Your task to perform on an android device: Go to Android settings Image 0: 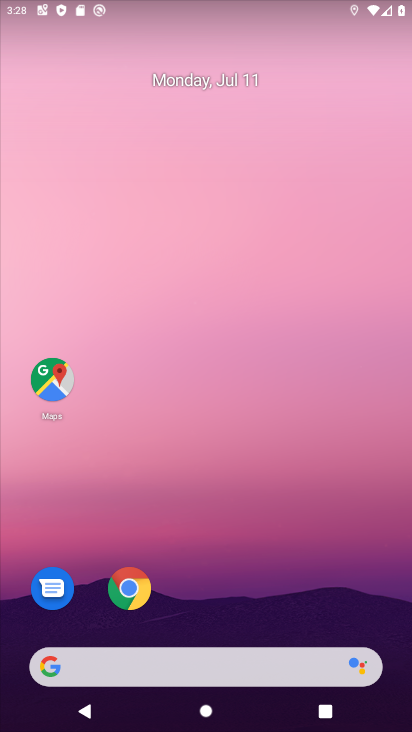
Step 0: drag from (165, 656) to (203, 336)
Your task to perform on an android device: Go to Android settings Image 1: 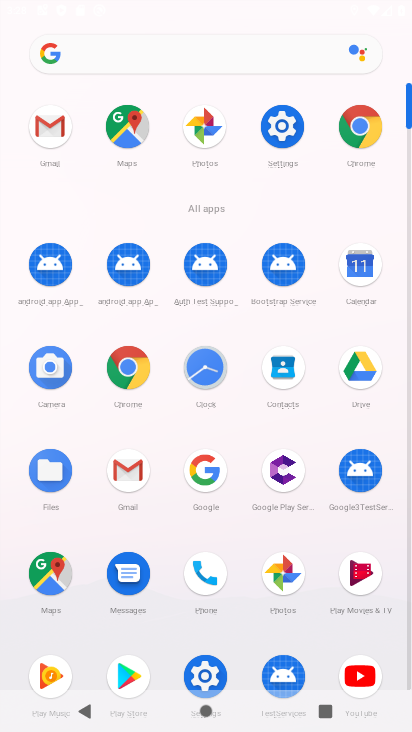
Step 1: click (282, 134)
Your task to perform on an android device: Go to Android settings Image 2: 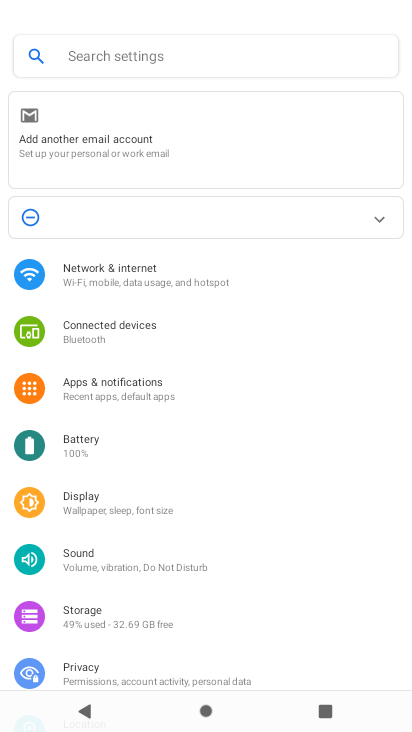
Step 2: task complete